Your task to perform on an android device: Go to Yahoo.com Image 0: 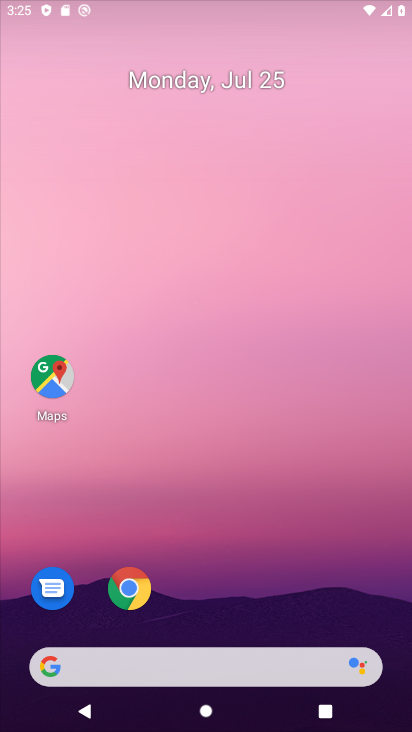
Step 0: press home button
Your task to perform on an android device: Go to Yahoo.com Image 1: 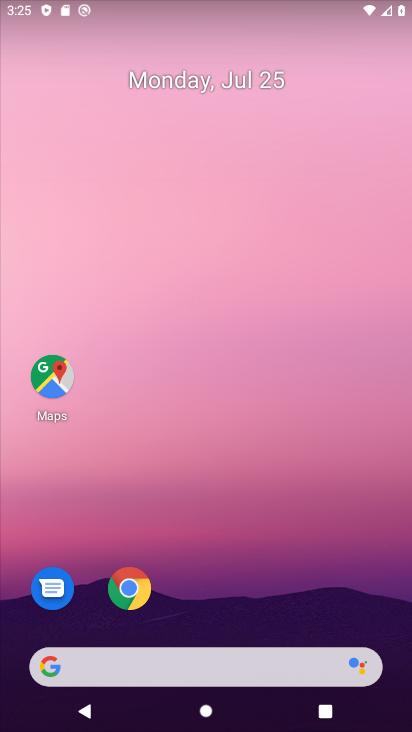
Step 1: drag from (227, 727) to (223, 225)
Your task to perform on an android device: Go to Yahoo.com Image 2: 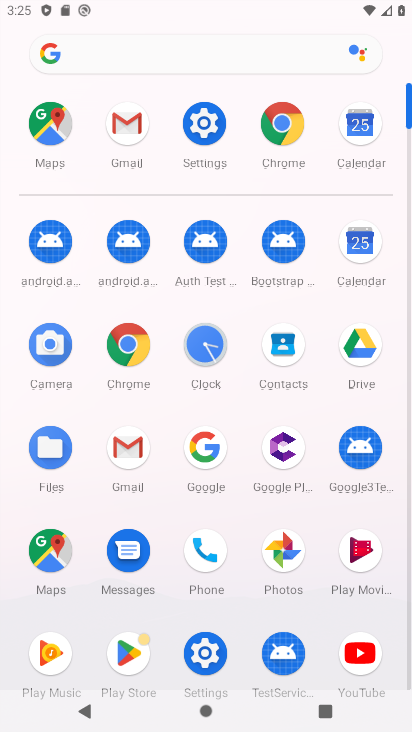
Step 2: click (283, 125)
Your task to perform on an android device: Go to Yahoo.com Image 3: 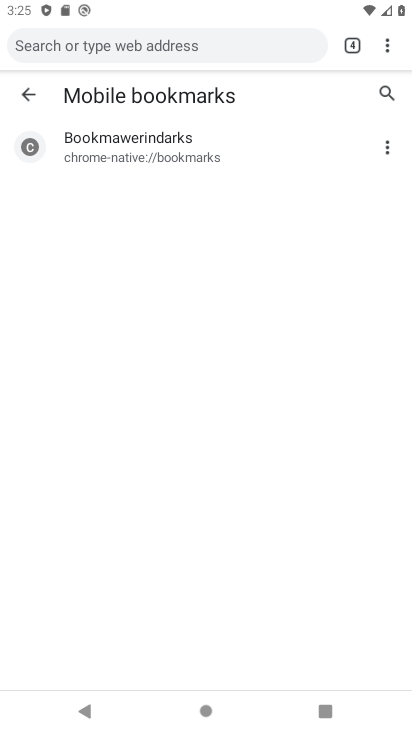
Step 3: click (387, 47)
Your task to perform on an android device: Go to Yahoo.com Image 4: 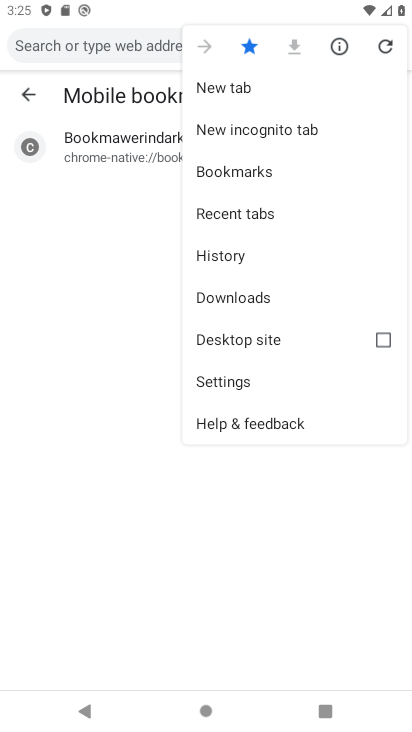
Step 4: click (216, 89)
Your task to perform on an android device: Go to Yahoo.com Image 5: 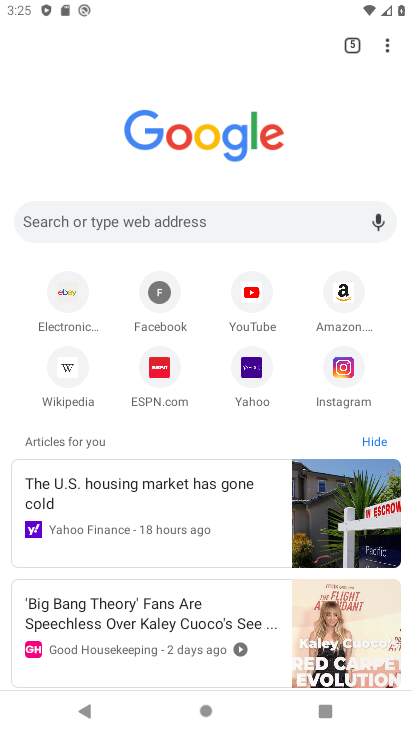
Step 5: click (258, 368)
Your task to perform on an android device: Go to Yahoo.com Image 6: 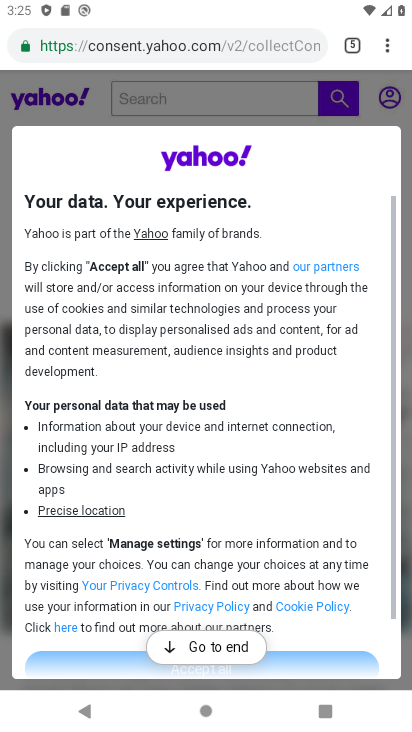
Step 6: click (203, 663)
Your task to perform on an android device: Go to Yahoo.com Image 7: 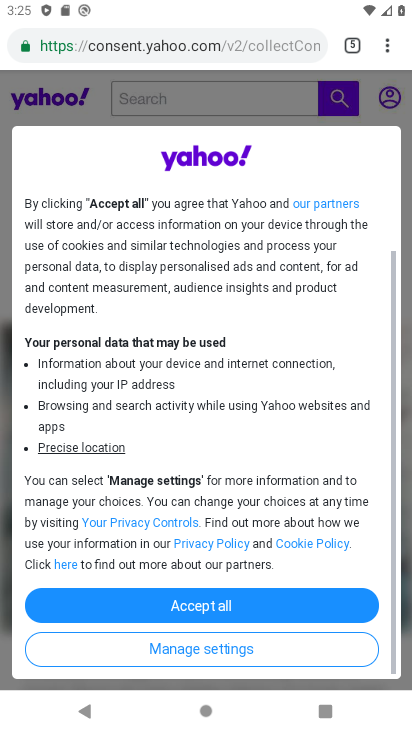
Step 7: click (238, 598)
Your task to perform on an android device: Go to Yahoo.com Image 8: 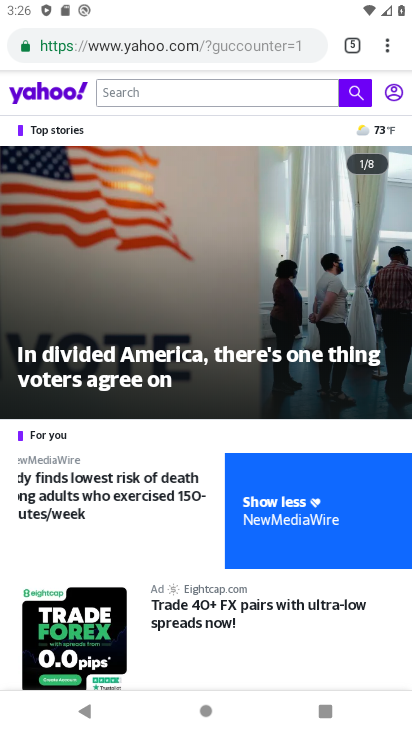
Step 8: task complete